Your task to perform on an android device: toggle airplane mode Image 0: 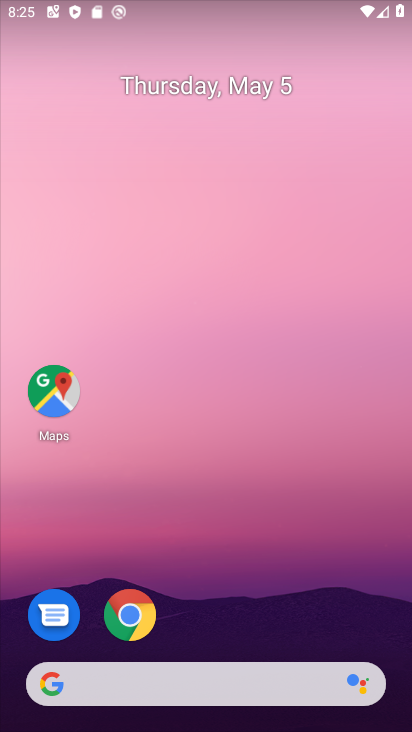
Step 0: drag from (215, 625) to (277, 1)
Your task to perform on an android device: toggle airplane mode Image 1: 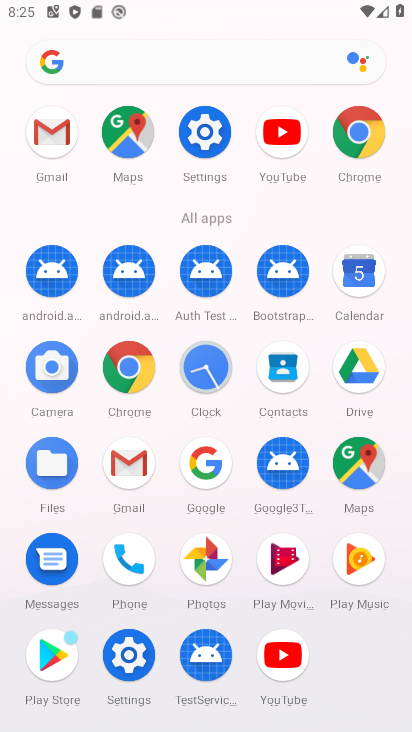
Step 1: click (205, 141)
Your task to perform on an android device: toggle airplane mode Image 2: 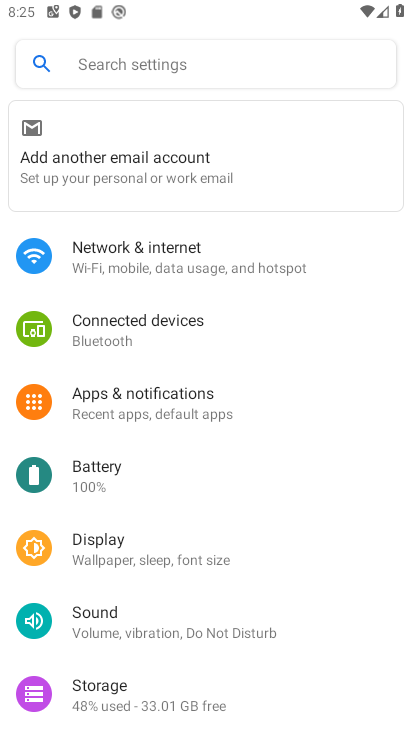
Step 2: click (156, 251)
Your task to perform on an android device: toggle airplane mode Image 3: 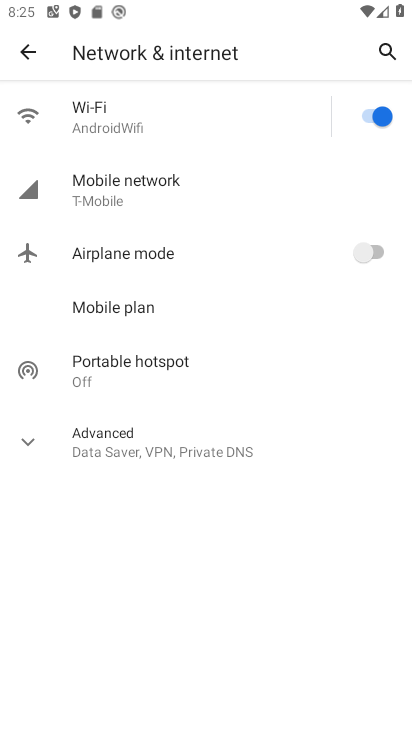
Step 3: click (145, 265)
Your task to perform on an android device: toggle airplane mode Image 4: 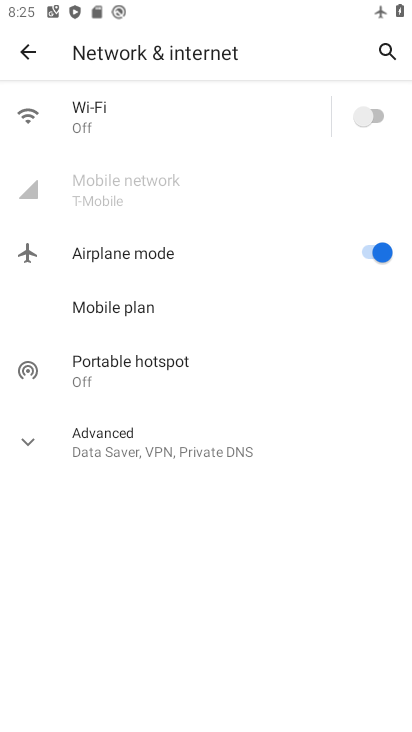
Step 4: task complete